Your task to perform on an android device: open wifi settings Image 0: 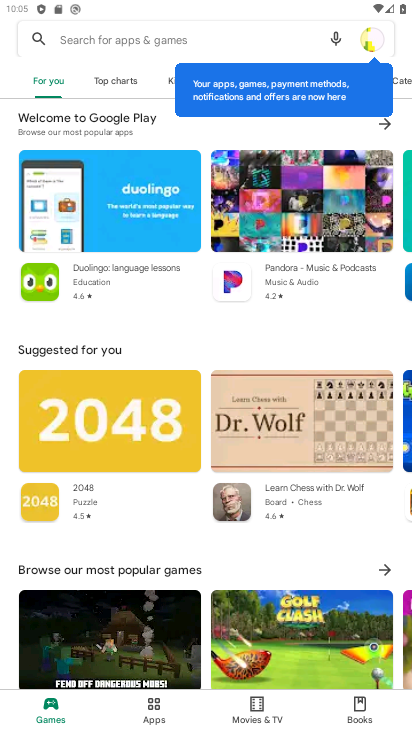
Step 0: press back button
Your task to perform on an android device: open wifi settings Image 1: 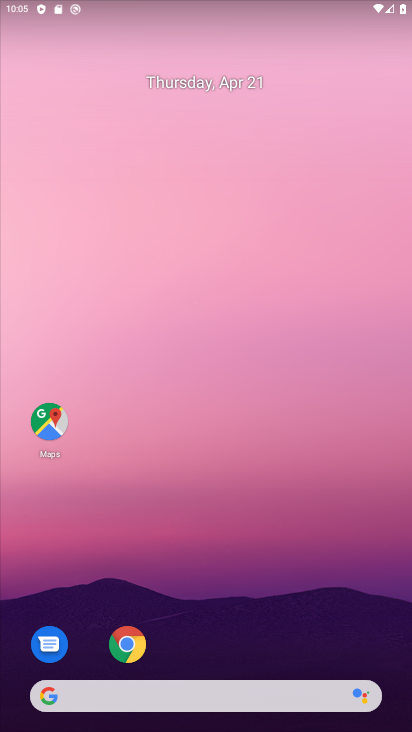
Step 1: drag from (171, 618) to (187, 71)
Your task to perform on an android device: open wifi settings Image 2: 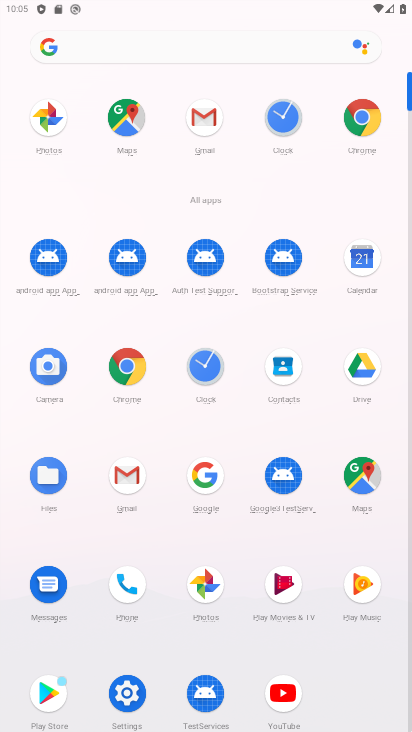
Step 2: click (123, 695)
Your task to perform on an android device: open wifi settings Image 3: 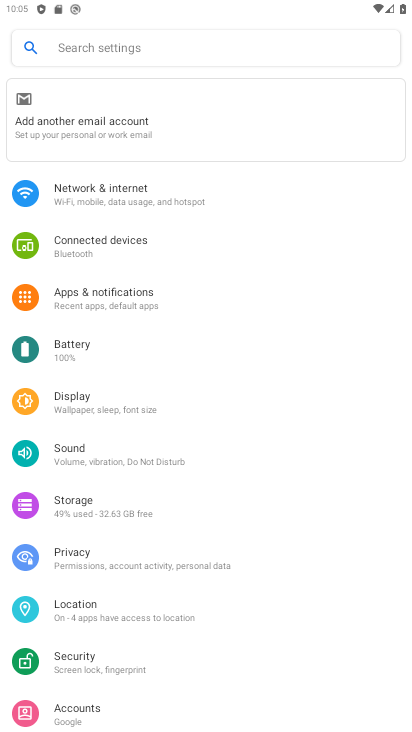
Step 3: click (73, 199)
Your task to perform on an android device: open wifi settings Image 4: 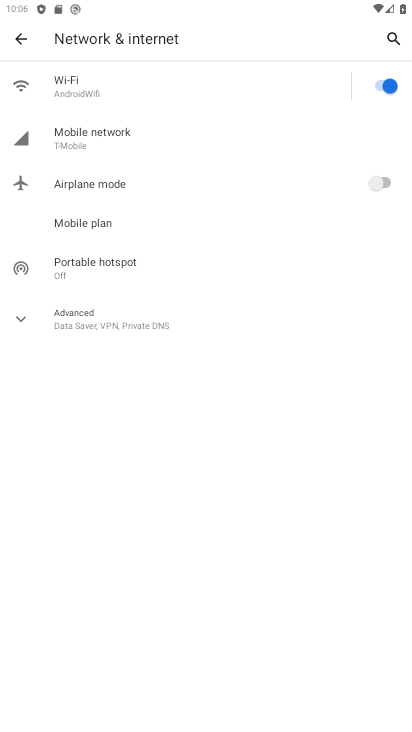
Step 4: click (250, 77)
Your task to perform on an android device: open wifi settings Image 5: 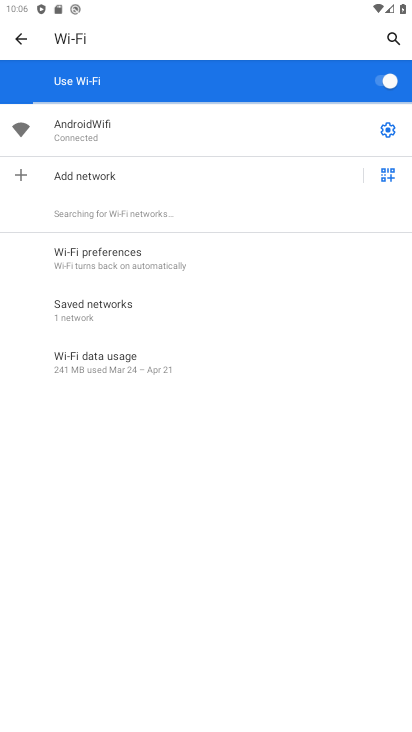
Step 5: task complete